Your task to perform on an android device: Go to internet settings Image 0: 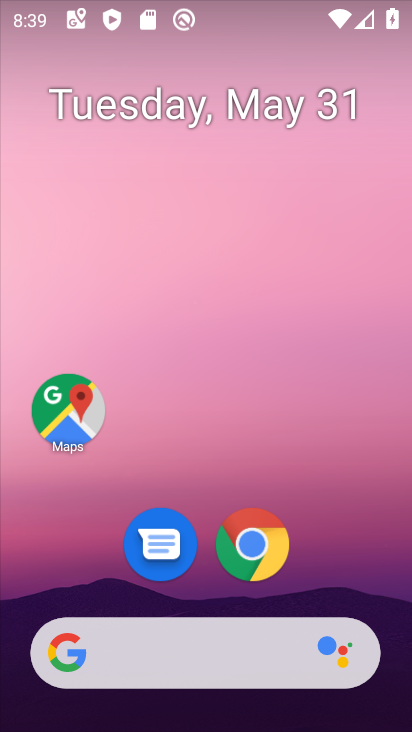
Step 0: drag from (328, 525) to (326, 1)
Your task to perform on an android device: Go to internet settings Image 1: 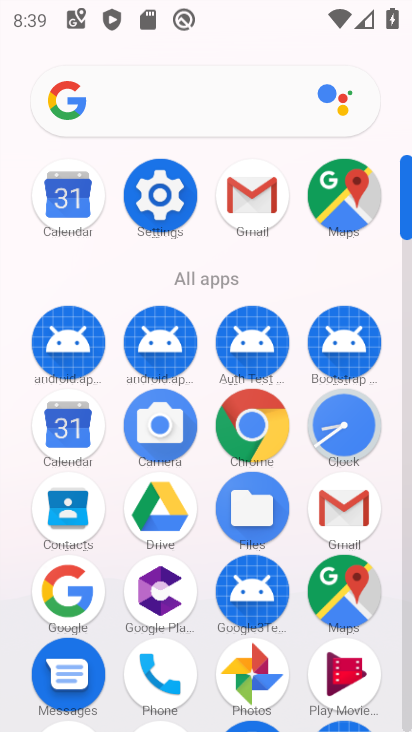
Step 1: click (159, 192)
Your task to perform on an android device: Go to internet settings Image 2: 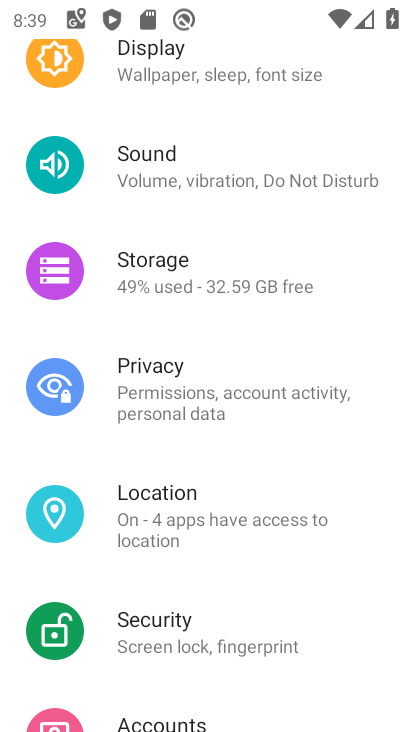
Step 2: drag from (215, 100) to (331, 647)
Your task to perform on an android device: Go to internet settings Image 3: 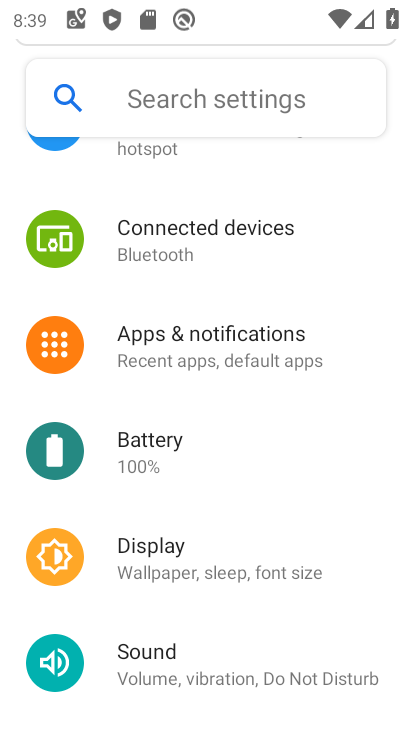
Step 3: drag from (279, 270) to (349, 594)
Your task to perform on an android device: Go to internet settings Image 4: 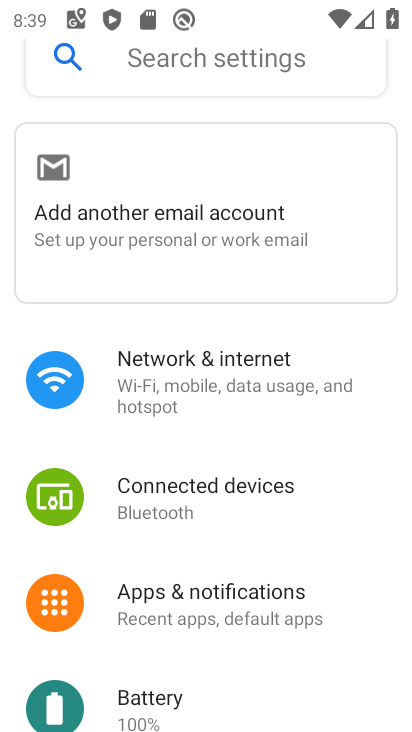
Step 4: click (230, 393)
Your task to perform on an android device: Go to internet settings Image 5: 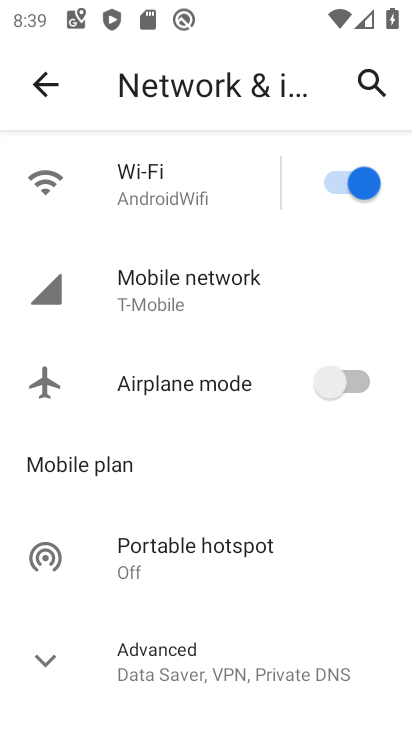
Step 5: click (135, 298)
Your task to perform on an android device: Go to internet settings Image 6: 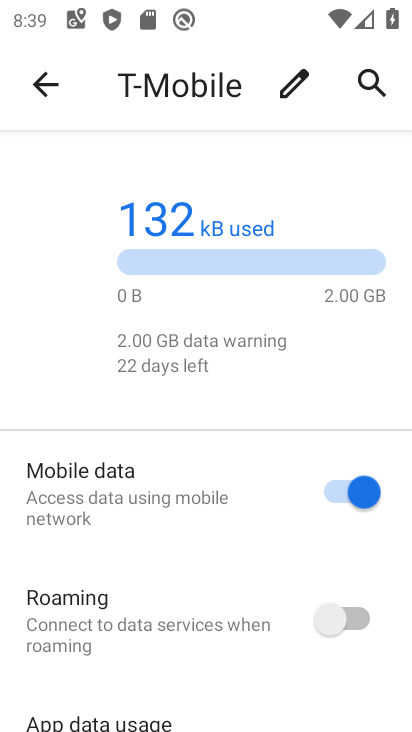
Step 6: task complete